Your task to perform on an android device: Open settings on Google Maps Image 0: 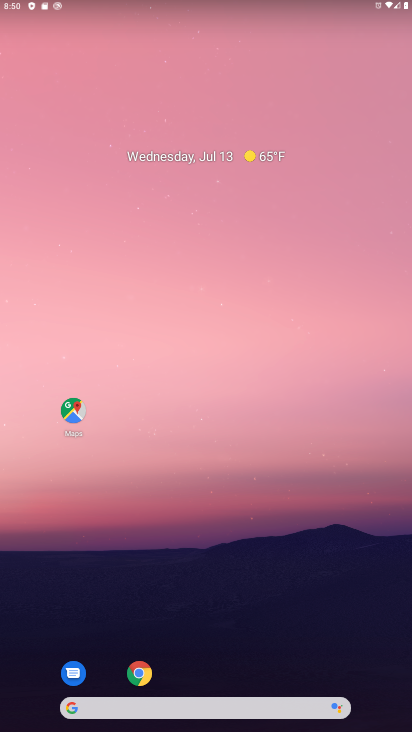
Step 0: click (72, 412)
Your task to perform on an android device: Open settings on Google Maps Image 1: 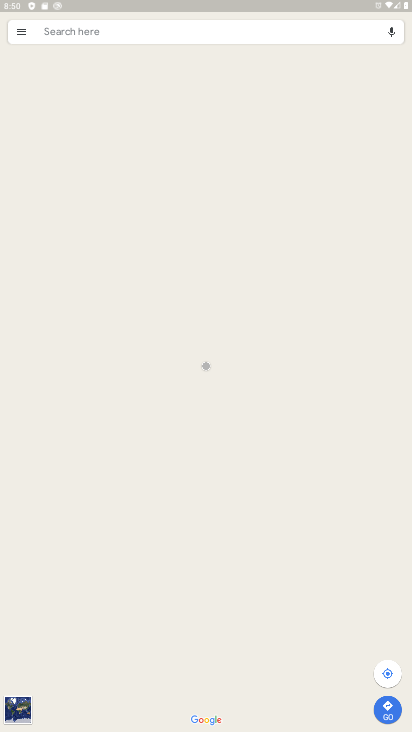
Step 1: click (23, 31)
Your task to perform on an android device: Open settings on Google Maps Image 2: 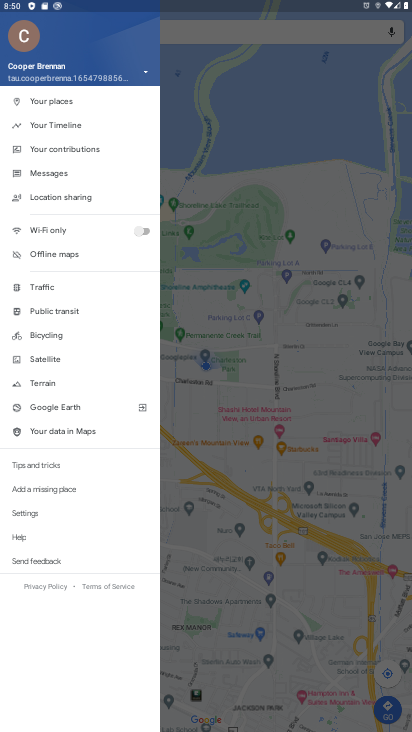
Step 2: click (34, 519)
Your task to perform on an android device: Open settings on Google Maps Image 3: 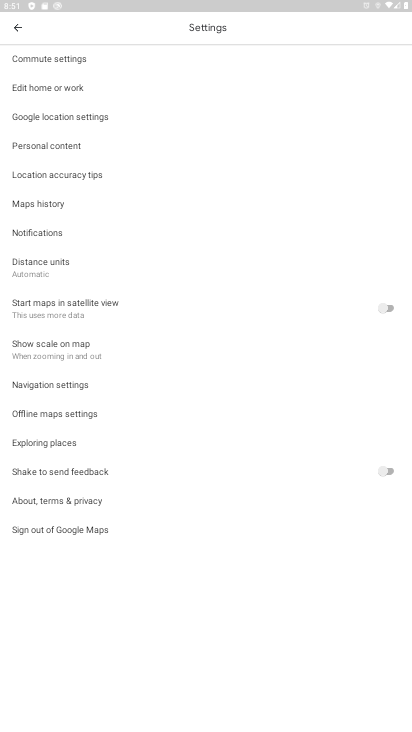
Step 3: task complete